Your task to perform on an android device: toggle priority inbox in the gmail app Image 0: 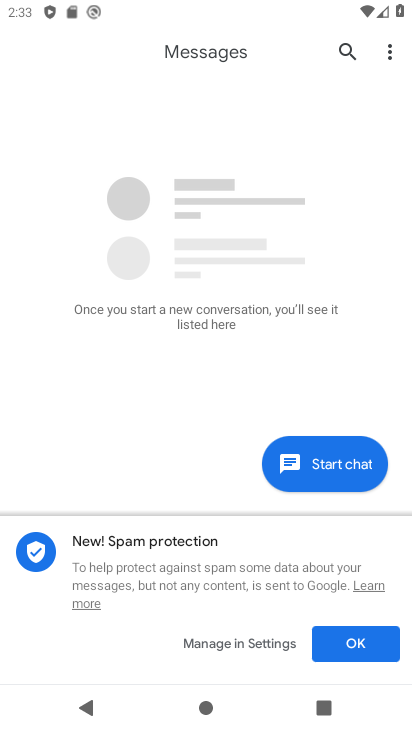
Step 0: drag from (210, 579) to (281, 66)
Your task to perform on an android device: toggle priority inbox in the gmail app Image 1: 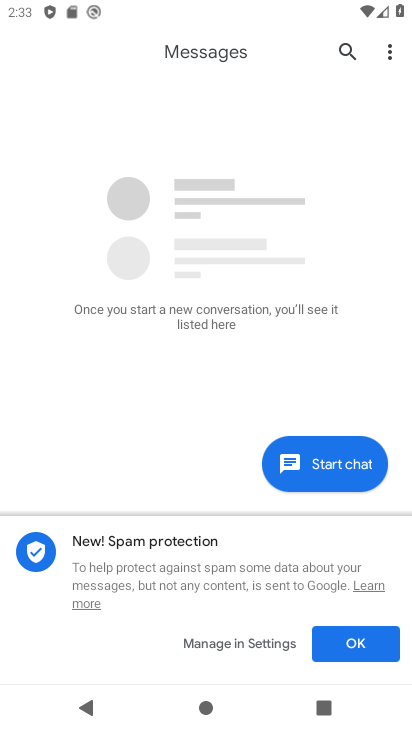
Step 1: press home button
Your task to perform on an android device: toggle priority inbox in the gmail app Image 2: 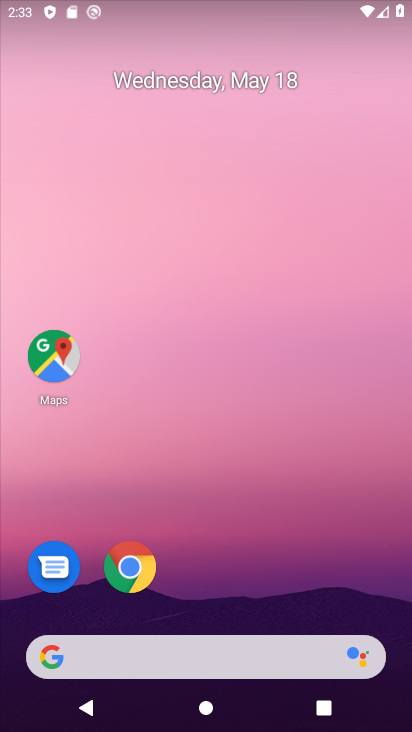
Step 2: drag from (212, 604) to (145, 184)
Your task to perform on an android device: toggle priority inbox in the gmail app Image 3: 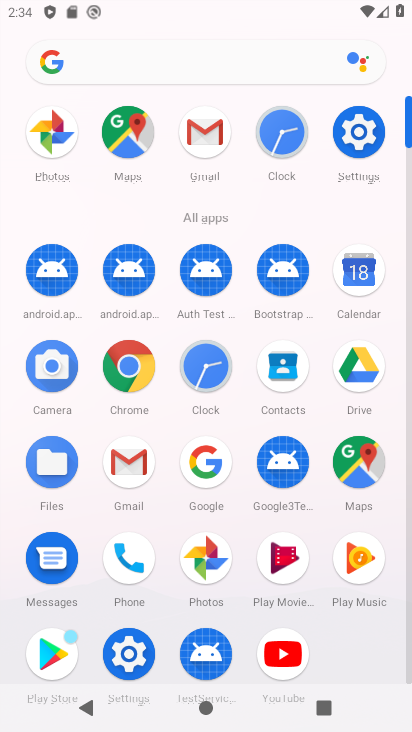
Step 3: click (129, 463)
Your task to perform on an android device: toggle priority inbox in the gmail app Image 4: 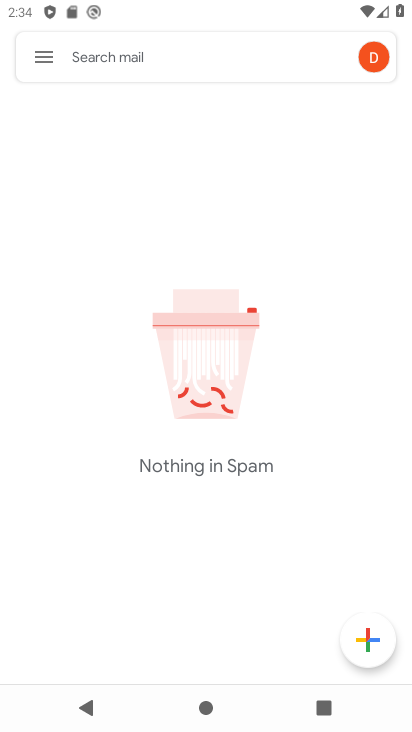
Step 4: click (49, 64)
Your task to perform on an android device: toggle priority inbox in the gmail app Image 5: 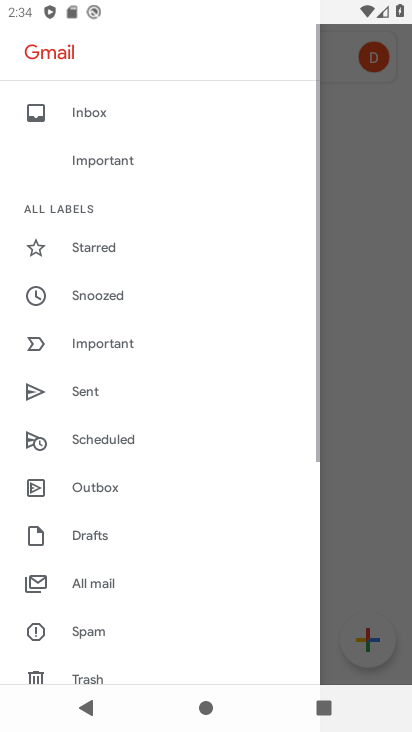
Step 5: drag from (117, 656) to (121, 255)
Your task to perform on an android device: toggle priority inbox in the gmail app Image 6: 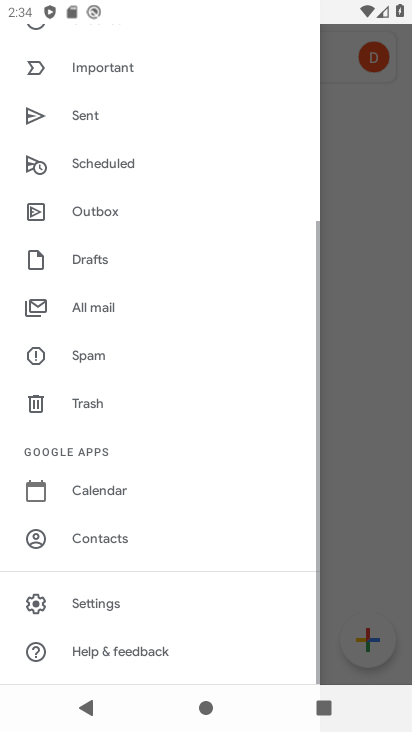
Step 6: click (79, 603)
Your task to perform on an android device: toggle priority inbox in the gmail app Image 7: 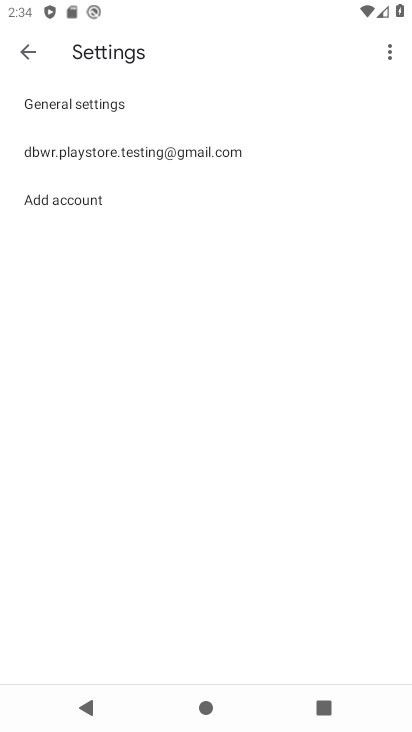
Step 7: click (110, 149)
Your task to perform on an android device: toggle priority inbox in the gmail app Image 8: 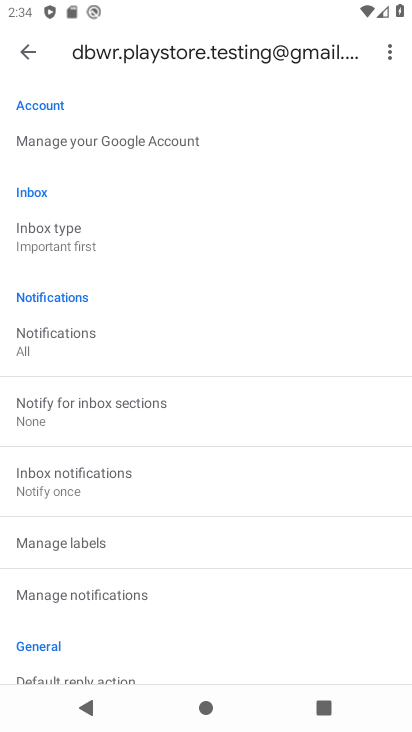
Step 8: click (67, 247)
Your task to perform on an android device: toggle priority inbox in the gmail app Image 9: 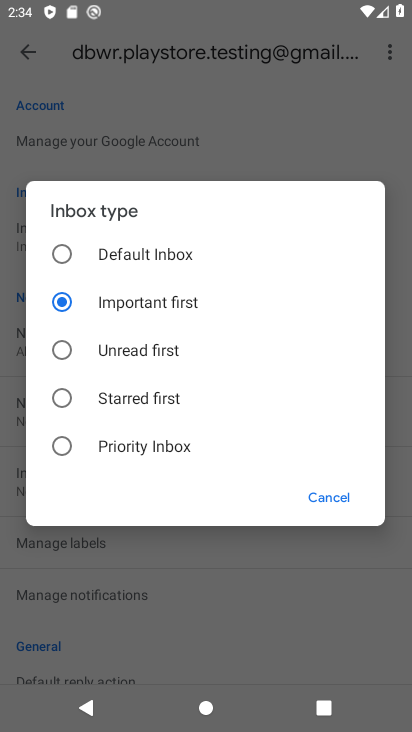
Step 9: click (64, 452)
Your task to perform on an android device: toggle priority inbox in the gmail app Image 10: 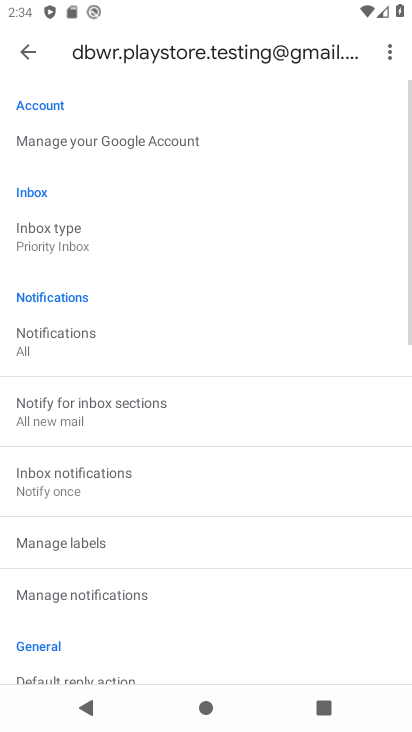
Step 10: task complete